Your task to perform on an android device: install app "Reddit" Image 0: 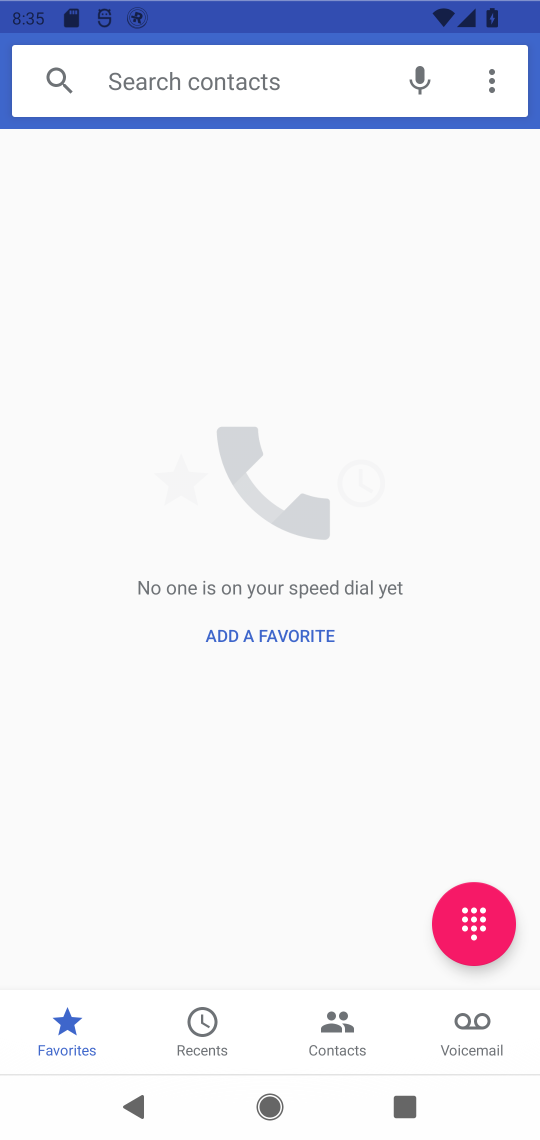
Step 0: press home button
Your task to perform on an android device: install app "Reddit" Image 1: 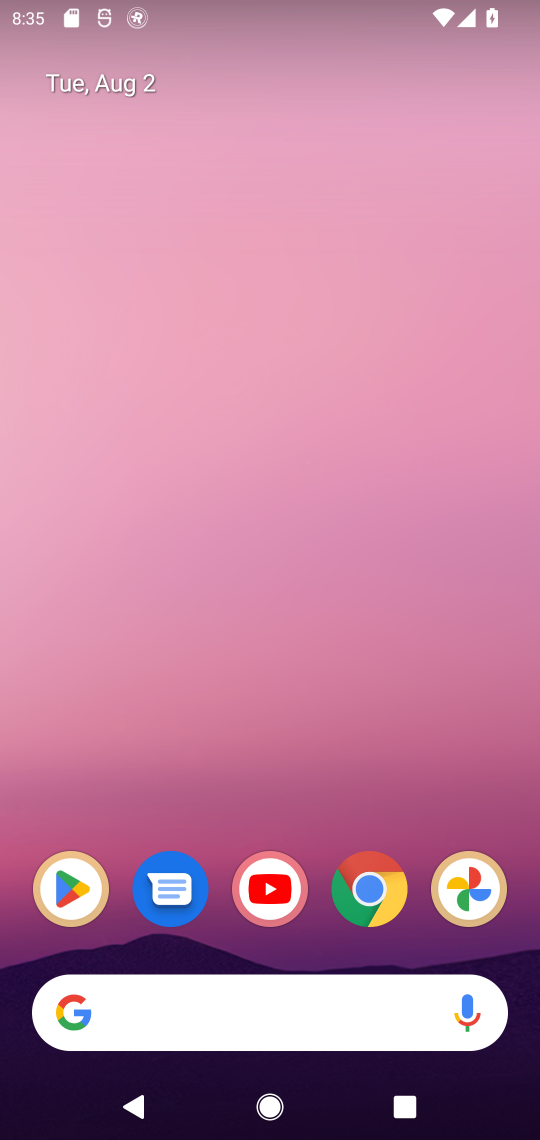
Step 1: click (69, 886)
Your task to perform on an android device: install app "Reddit" Image 2: 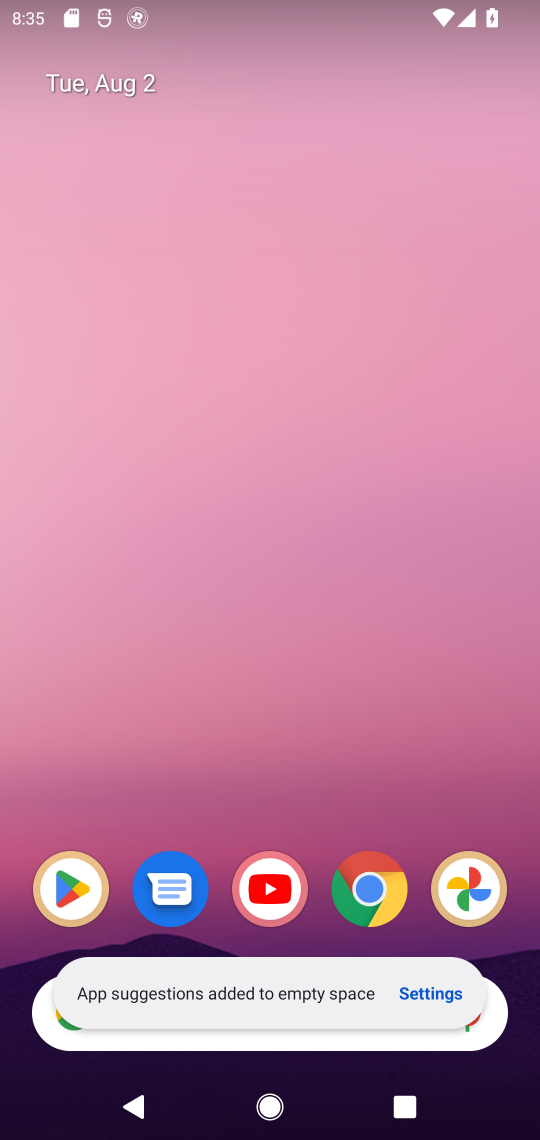
Step 2: click (69, 888)
Your task to perform on an android device: install app "Reddit" Image 3: 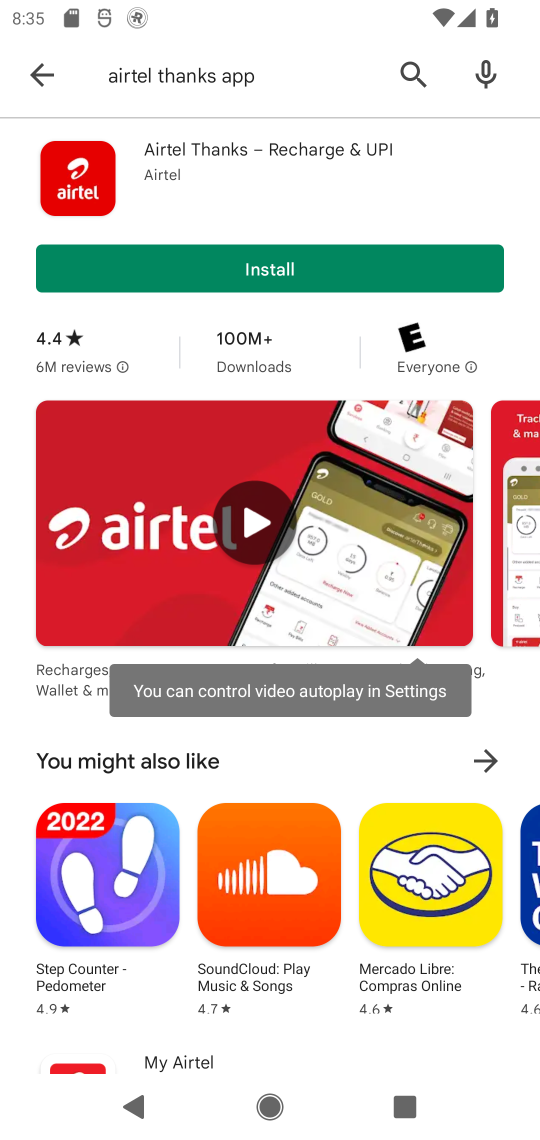
Step 3: click (415, 66)
Your task to perform on an android device: install app "Reddit" Image 4: 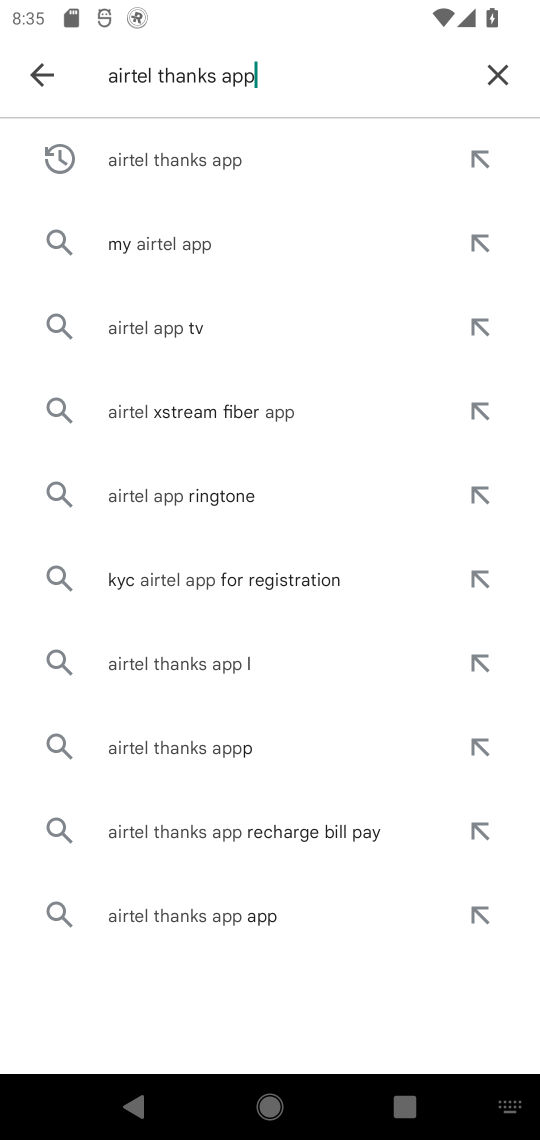
Step 4: click (503, 70)
Your task to perform on an android device: install app "Reddit" Image 5: 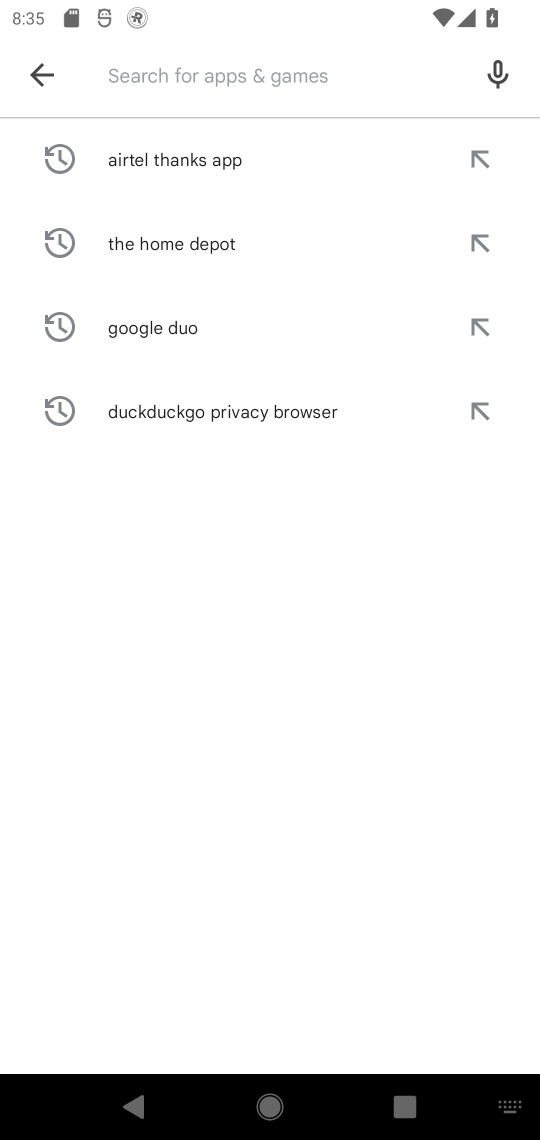
Step 5: type "Reddit"
Your task to perform on an android device: install app "Reddit" Image 6: 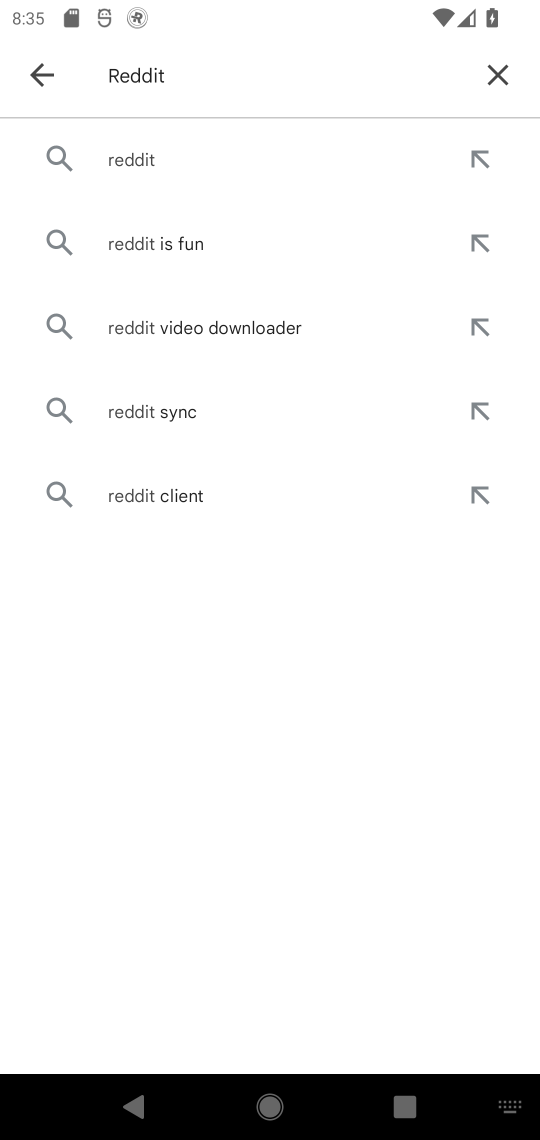
Step 6: click (132, 153)
Your task to perform on an android device: install app "Reddit" Image 7: 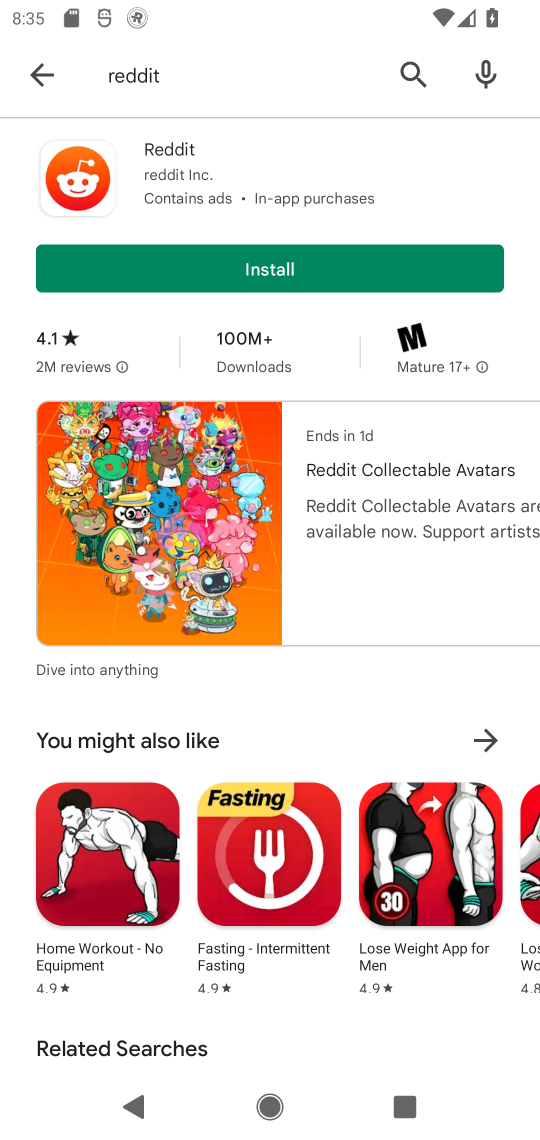
Step 7: click (266, 260)
Your task to perform on an android device: install app "Reddit" Image 8: 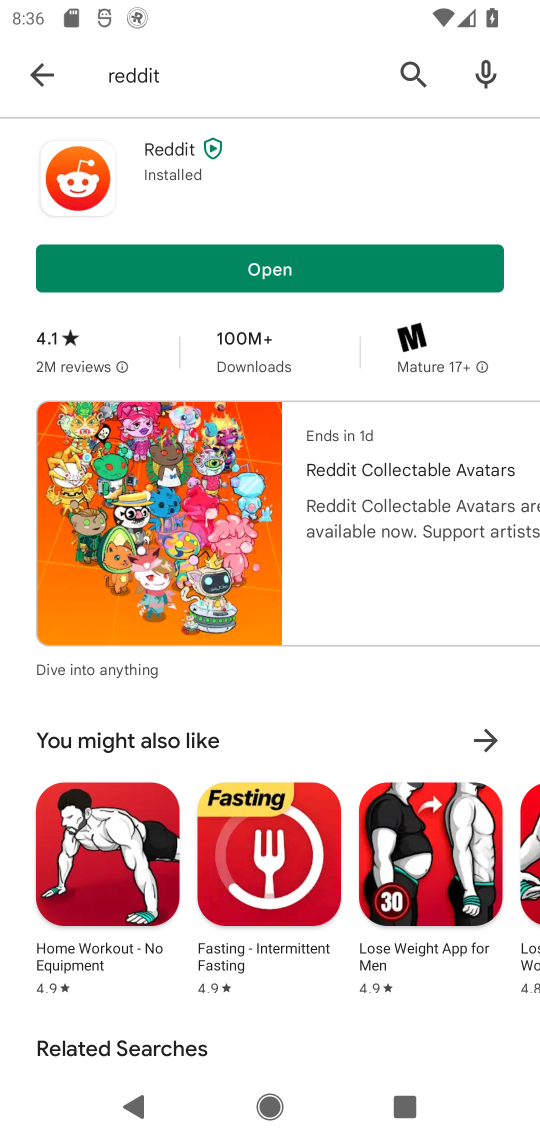
Step 8: task complete